Your task to perform on an android device: turn on data saver in the chrome app Image 0: 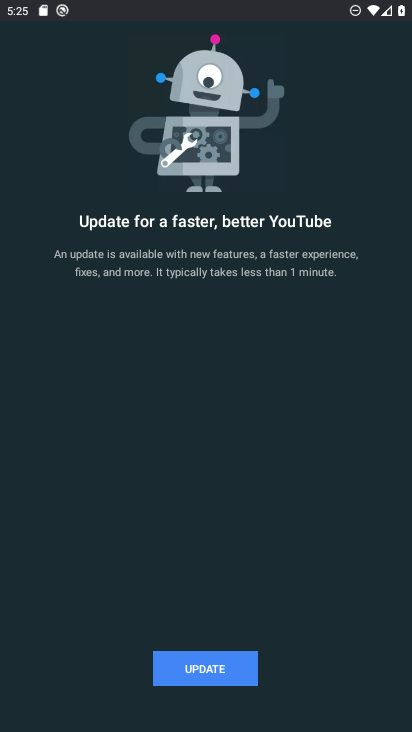
Step 0: press back button
Your task to perform on an android device: turn on data saver in the chrome app Image 1: 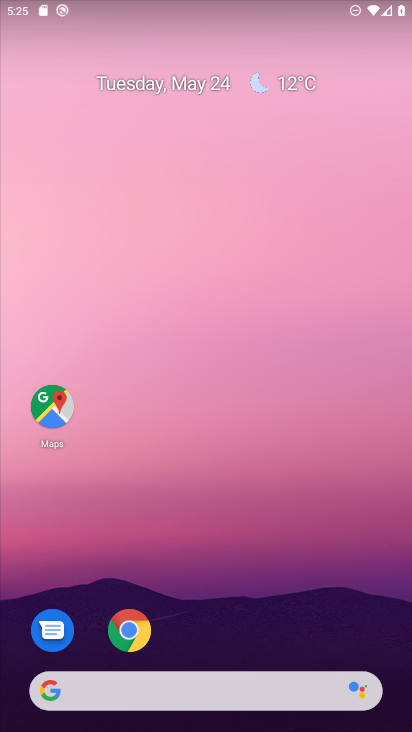
Step 1: click (148, 637)
Your task to perform on an android device: turn on data saver in the chrome app Image 2: 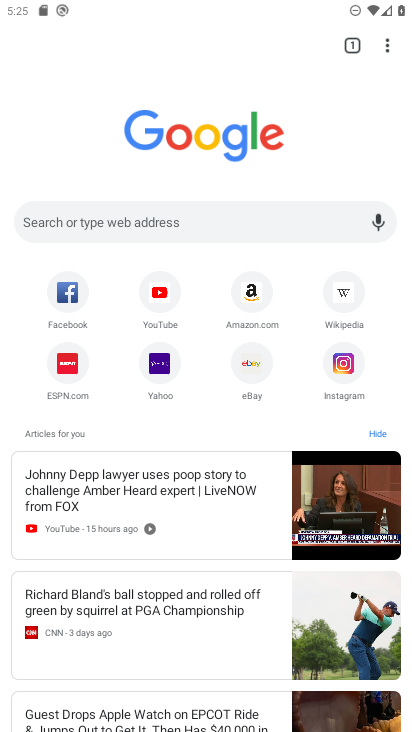
Step 2: click (387, 52)
Your task to perform on an android device: turn on data saver in the chrome app Image 3: 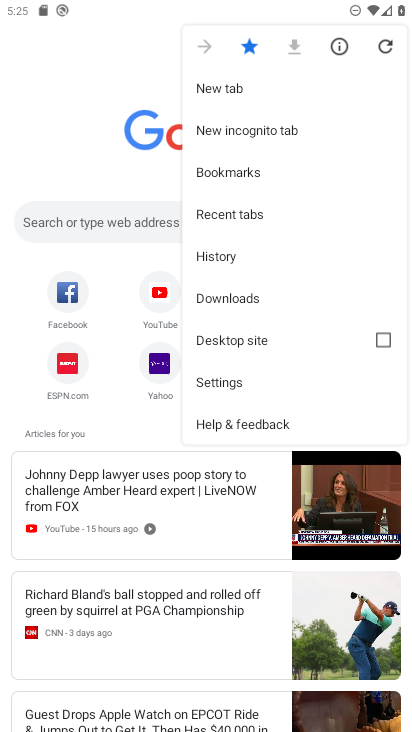
Step 3: click (230, 392)
Your task to perform on an android device: turn on data saver in the chrome app Image 4: 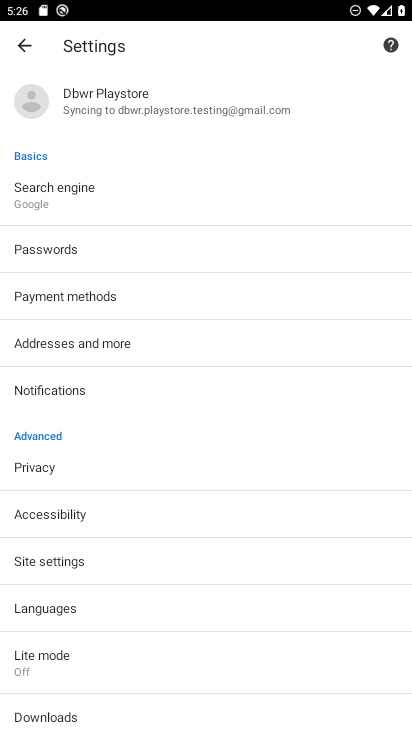
Step 4: click (43, 651)
Your task to perform on an android device: turn on data saver in the chrome app Image 5: 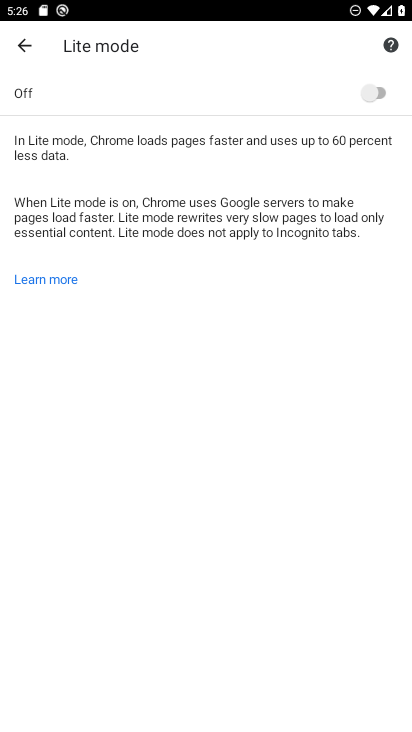
Step 5: click (391, 94)
Your task to perform on an android device: turn on data saver in the chrome app Image 6: 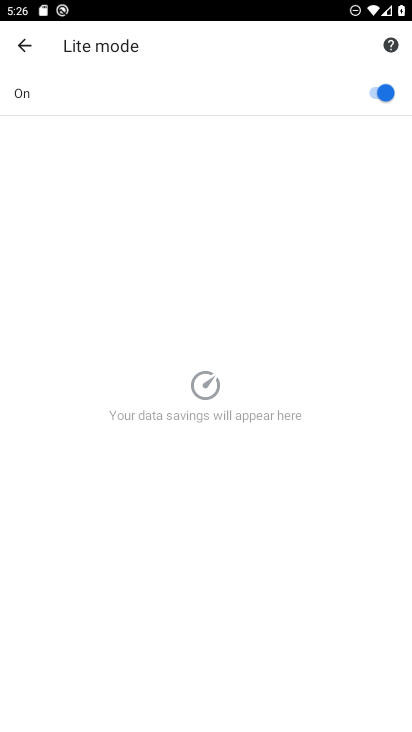
Step 6: task complete